Your task to perform on an android device: toggle notifications settings in the gmail app Image 0: 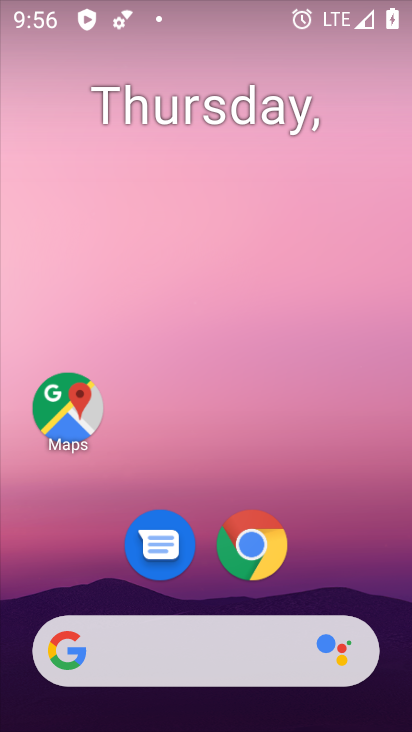
Step 0: drag from (373, 529) to (312, 5)
Your task to perform on an android device: toggle notifications settings in the gmail app Image 1: 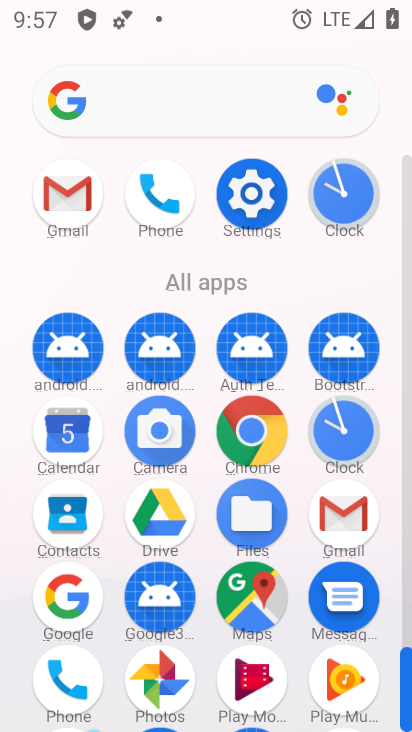
Step 1: click (73, 198)
Your task to perform on an android device: toggle notifications settings in the gmail app Image 2: 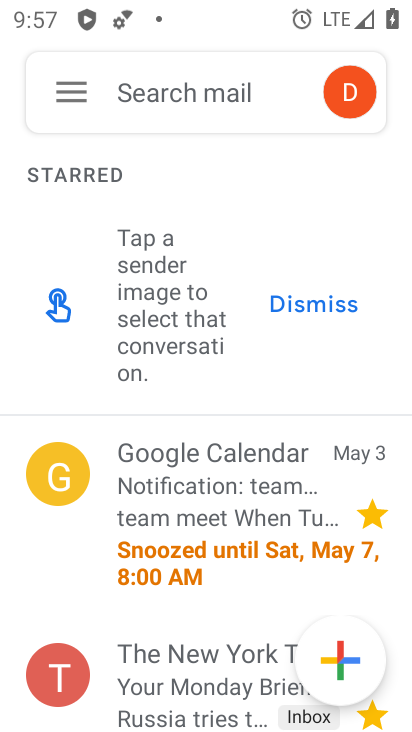
Step 2: click (64, 92)
Your task to perform on an android device: toggle notifications settings in the gmail app Image 3: 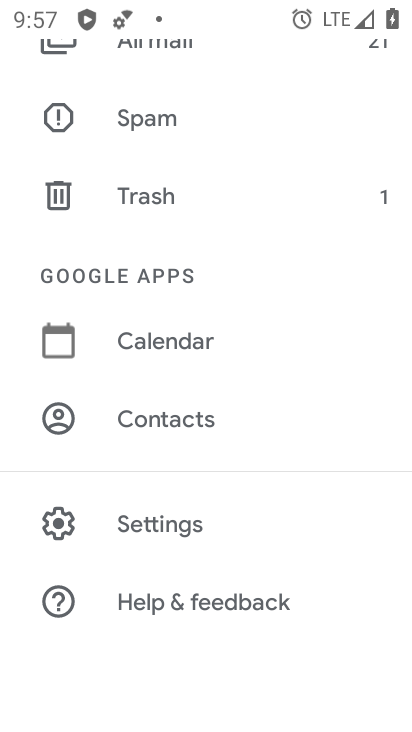
Step 3: click (183, 526)
Your task to perform on an android device: toggle notifications settings in the gmail app Image 4: 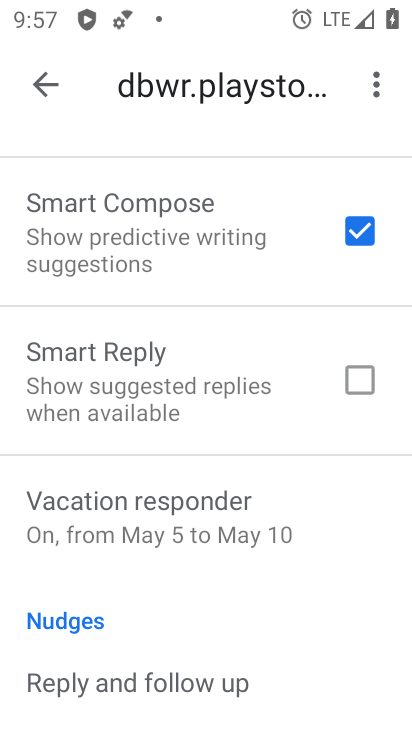
Step 4: drag from (207, 529) to (290, 636)
Your task to perform on an android device: toggle notifications settings in the gmail app Image 5: 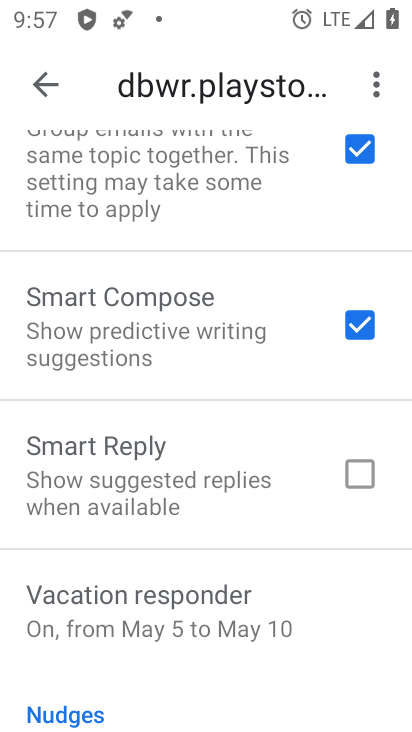
Step 5: drag from (238, 213) to (232, 601)
Your task to perform on an android device: toggle notifications settings in the gmail app Image 6: 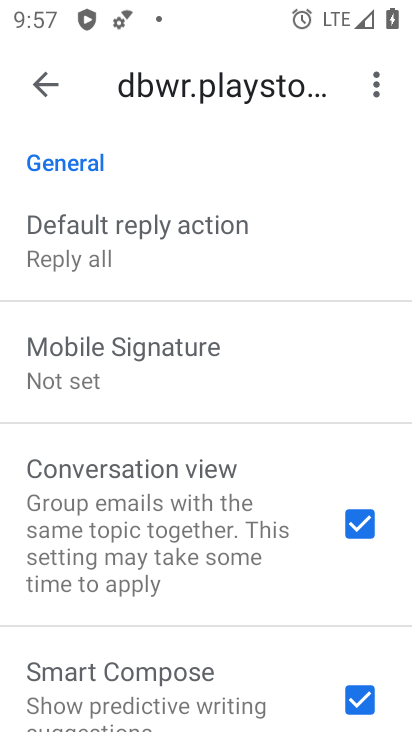
Step 6: drag from (181, 370) to (140, 703)
Your task to perform on an android device: toggle notifications settings in the gmail app Image 7: 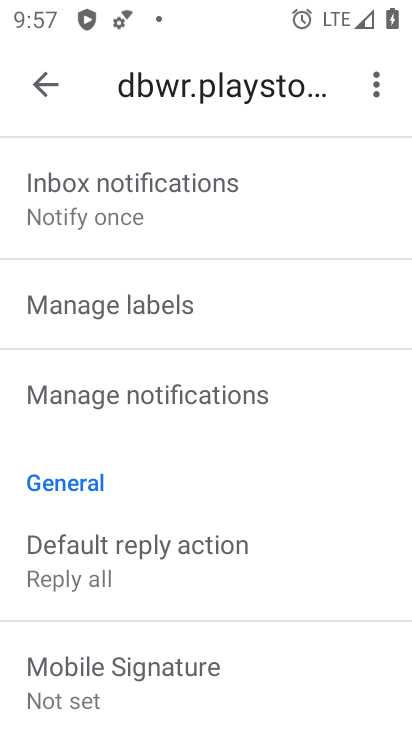
Step 7: drag from (183, 281) to (177, 716)
Your task to perform on an android device: toggle notifications settings in the gmail app Image 8: 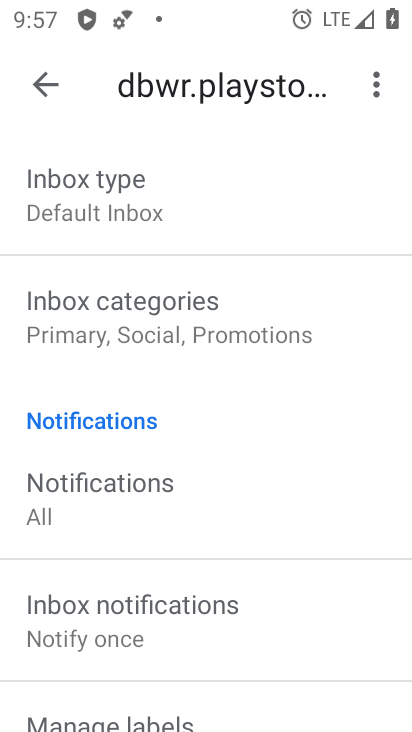
Step 8: click (36, 83)
Your task to perform on an android device: toggle notifications settings in the gmail app Image 9: 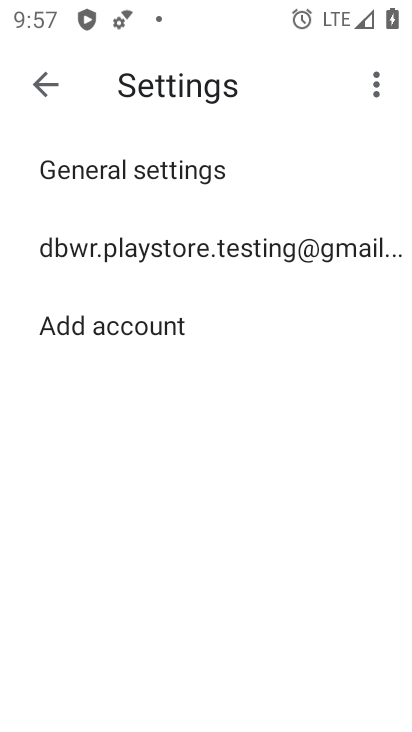
Step 9: click (128, 164)
Your task to perform on an android device: toggle notifications settings in the gmail app Image 10: 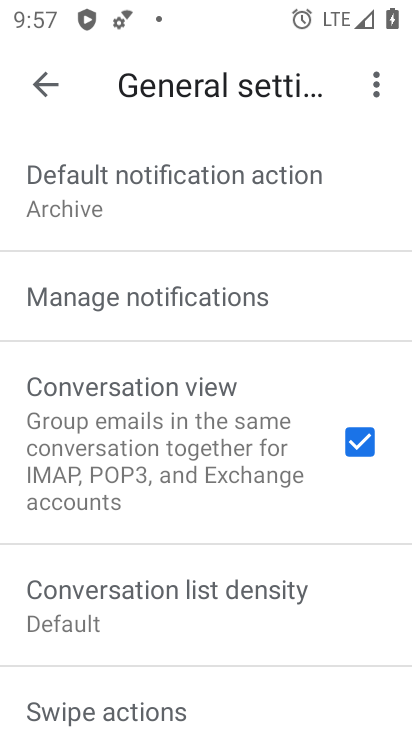
Step 10: click (145, 302)
Your task to perform on an android device: toggle notifications settings in the gmail app Image 11: 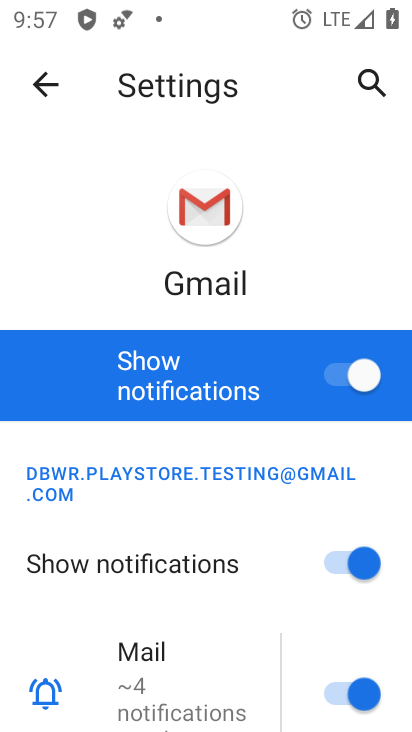
Step 11: click (366, 384)
Your task to perform on an android device: toggle notifications settings in the gmail app Image 12: 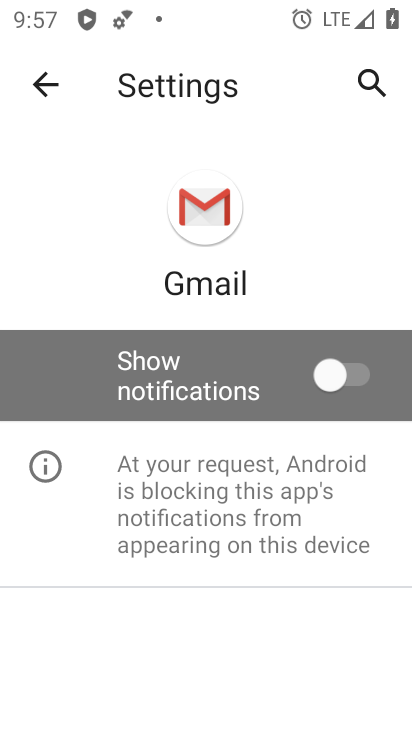
Step 12: task complete